Your task to perform on an android device: Open settings Image 0: 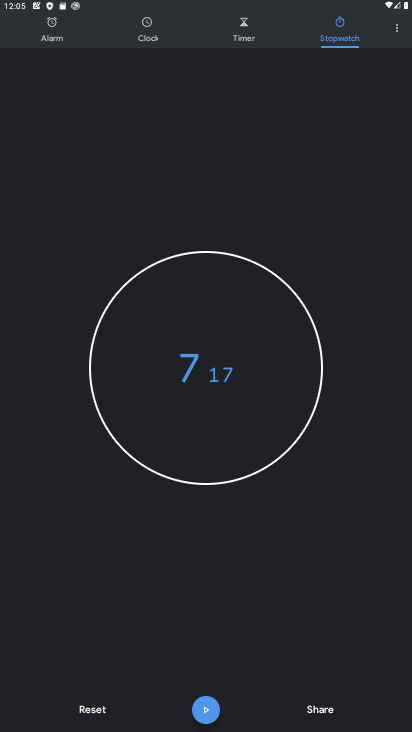
Step 0: press home button
Your task to perform on an android device: Open settings Image 1: 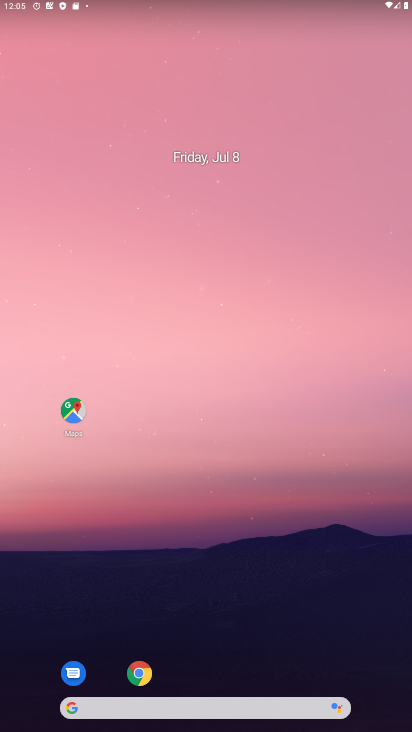
Step 1: drag from (235, 645) to (214, 39)
Your task to perform on an android device: Open settings Image 2: 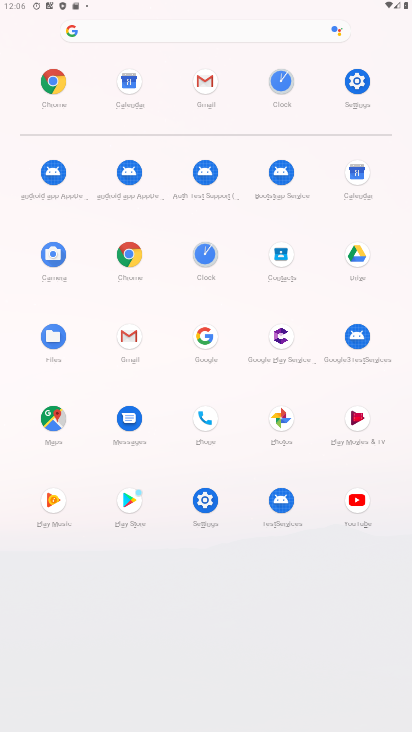
Step 2: click (357, 81)
Your task to perform on an android device: Open settings Image 3: 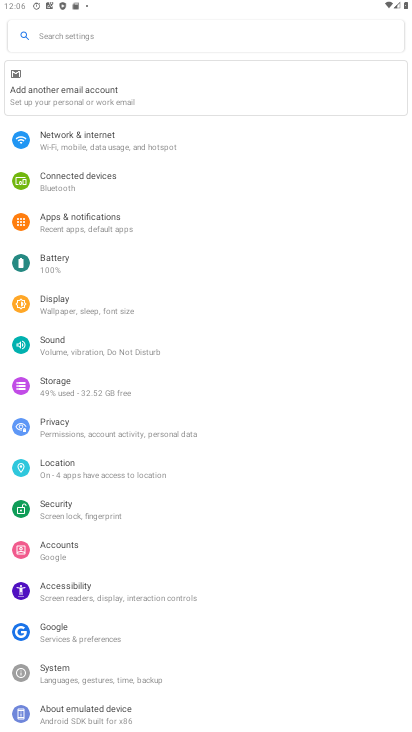
Step 3: task complete